Your task to perform on an android device: check data usage Image 0: 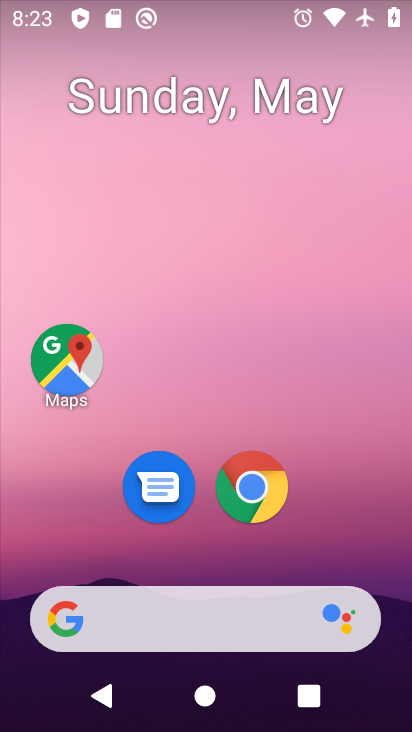
Step 0: drag from (205, 578) to (238, 68)
Your task to perform on an android device: check data usage Image 1: 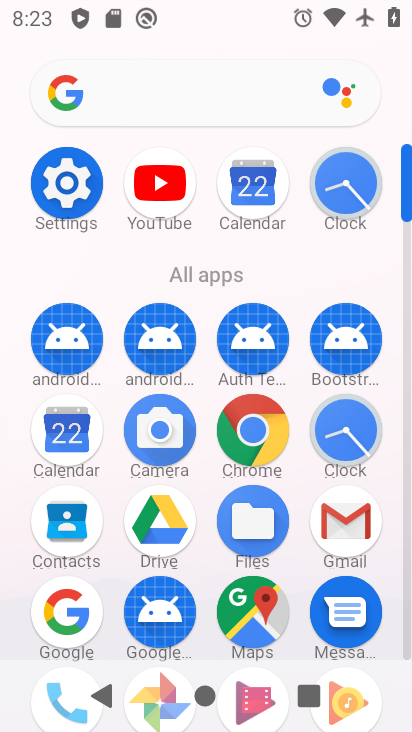
Step 1: click (88, 184)
Your task to perform on an android device: check data usage Image 2: 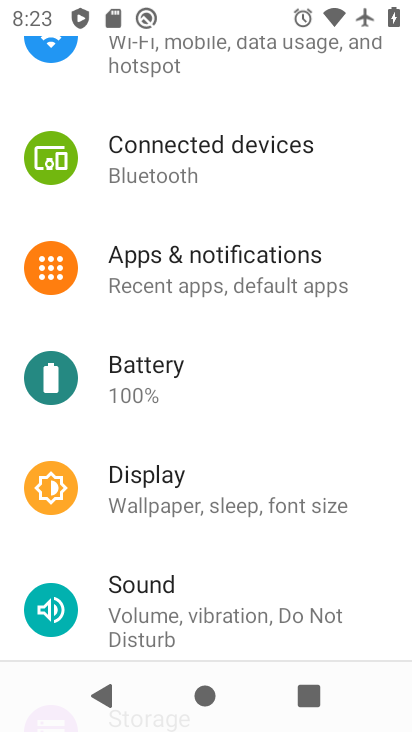
Step 2: drag from (215, 203) to (186, 638)
Your task to perform on an android device: check data usage Image 3: 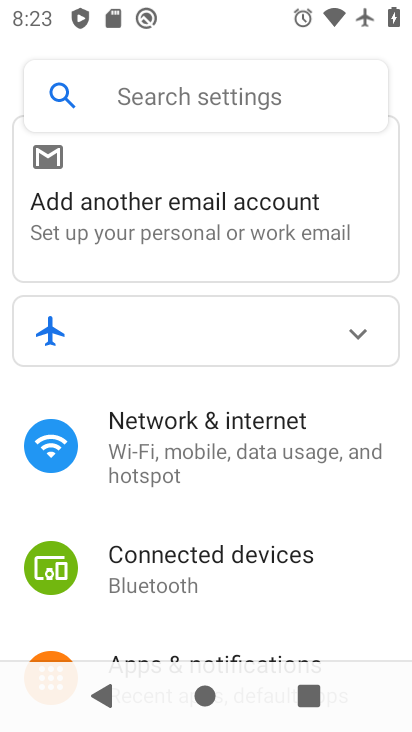
Step 3: click (163, 457)
Your task to perform on an android device: check data usage Image 4: 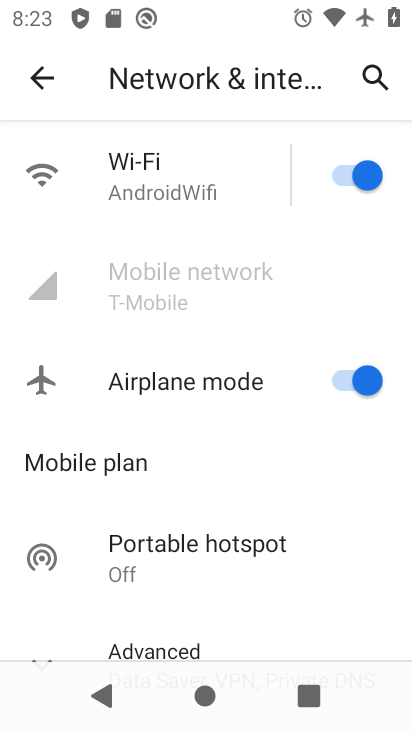
Step 4: click (363, 381)
Your task to perform on an android device: check data usage Image 5: 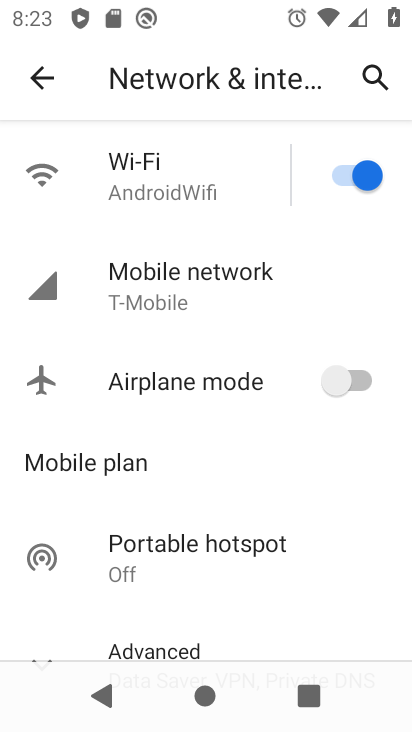
Step 5: click (161, 254)
Your task to perform on an android device: check data usage Image 6: 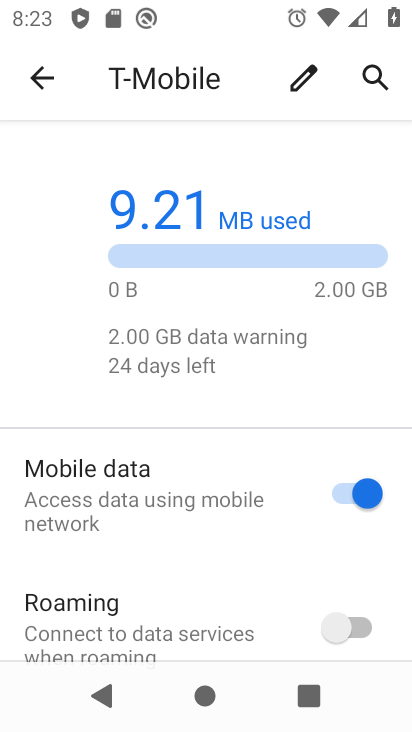
Step 6: drag from (142, 613) to (227, 147)
Your task to perform on an android device: check data usage Image 7: 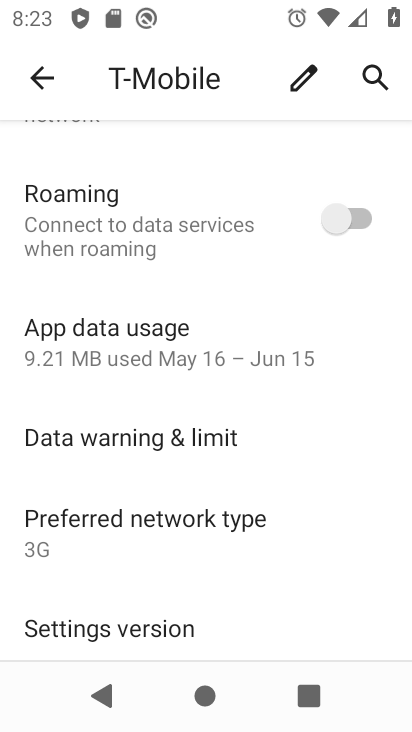
Step 7: click (129, 351)
Your task to perform on an android device: check data usage Image 8: 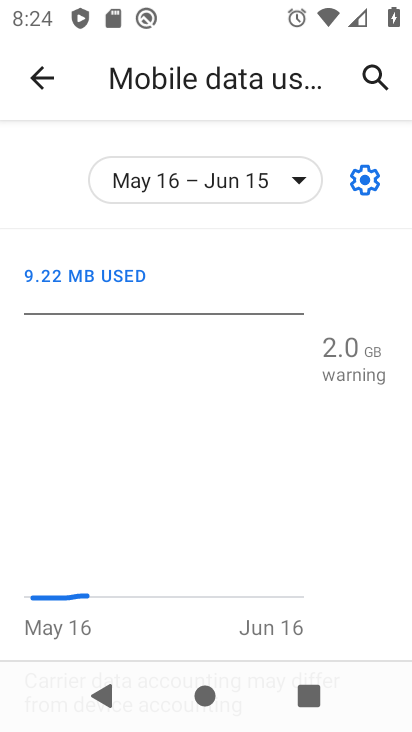
Step 8: task complete